Your task to perform on an android device: turn off data saver in the chrome app Image 0: 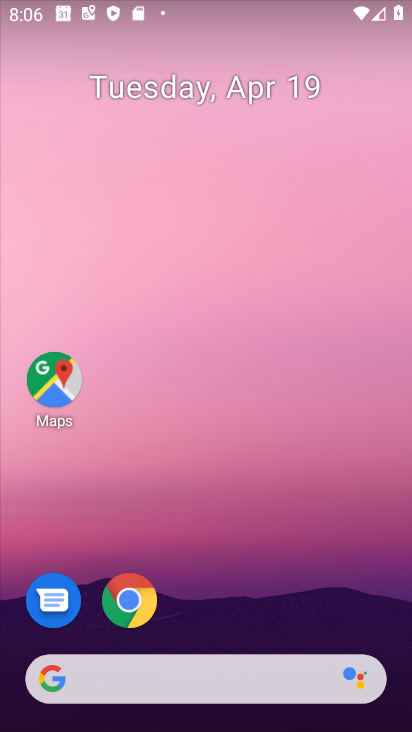
Step 0: drag from (264, 616) to (240, 63)
Your task to perform on an android device: turn off data saver in the chrome app Image 1: 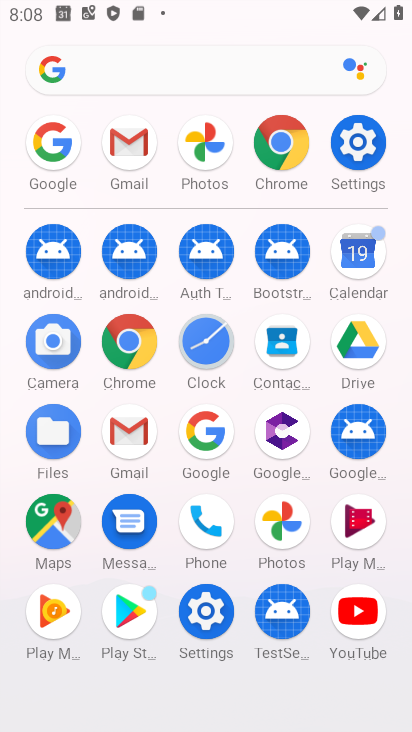
Step 1: click (131, 339)
Your task to perform on an android device: turn off data saver in the chrome app Image 2: 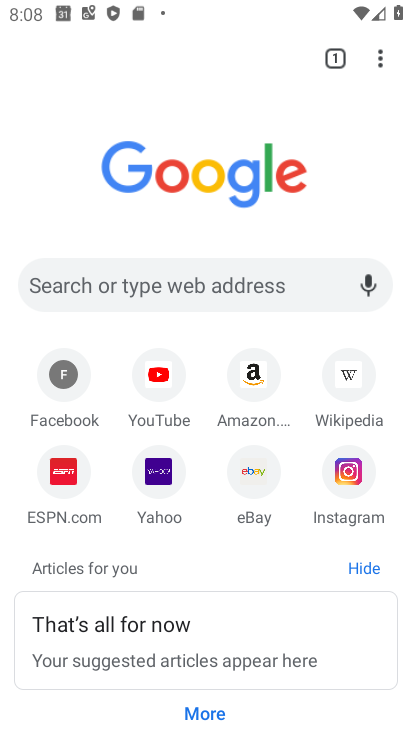
Step 2: click (380, 50)
Your task to perform on an android device: turn off data saver in the chrome app Image 3: 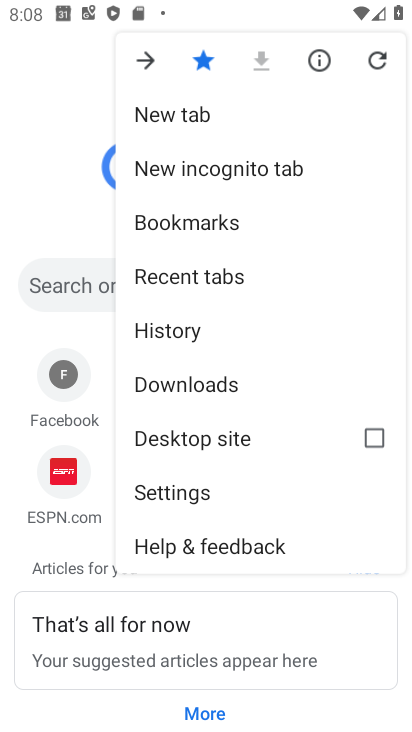
Step 3: click (196, 501)
Your task to perform on an android device: turn off data saver in the chrome app Image 4: 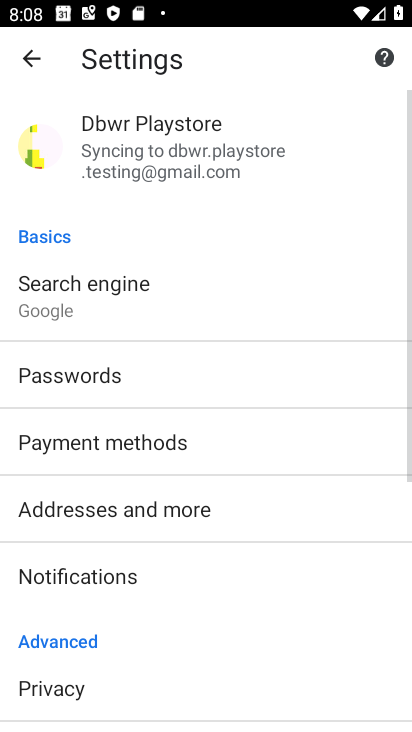
Step 4: drag from (69, 627) to (230, 165)
Your task to perform on an android device: turn off data saver in the chrome app Image 5: 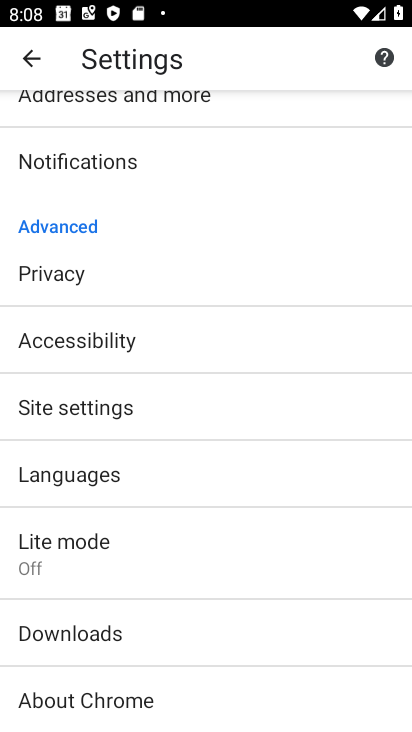
Step 5: click (236, 552)
Your task to perform on an android device: turn off data saver in the chrome app Image 6: 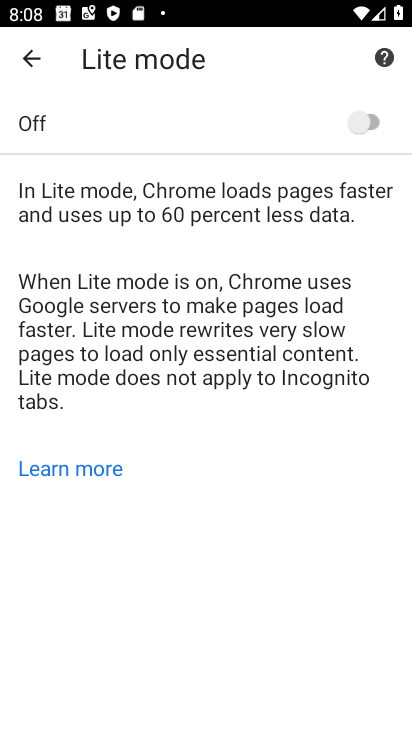
Step 6: task complete